Your task to perform on an android device: show emergency info Image 0: 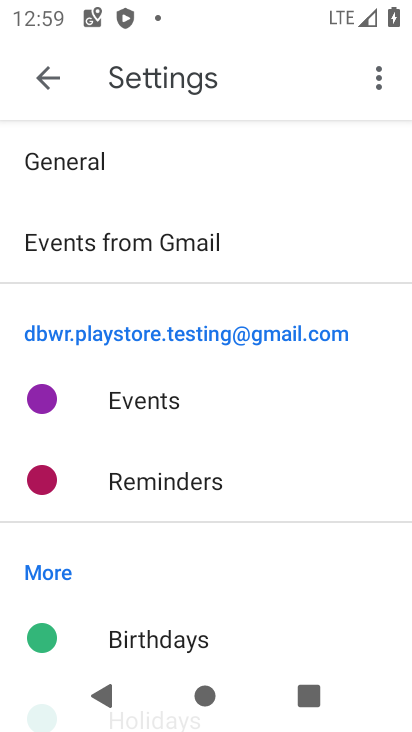
Step 0: press back button
Your task to perform on an android device: show emergency info Image 1: 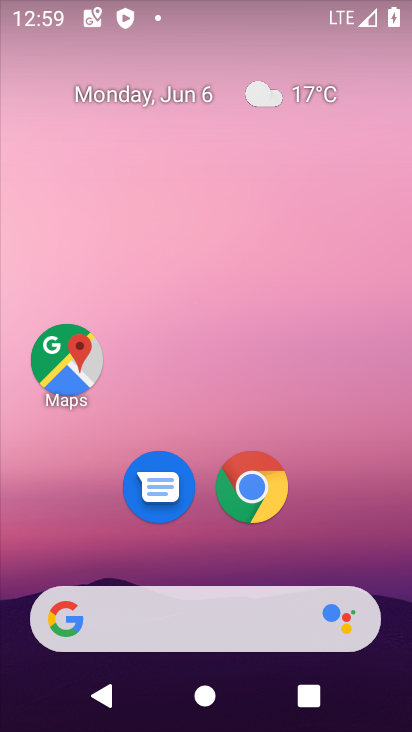
Step 1: drag from (211, 554) to (268, 19)
Your task to perform on an android device: show emergency info Image 2: 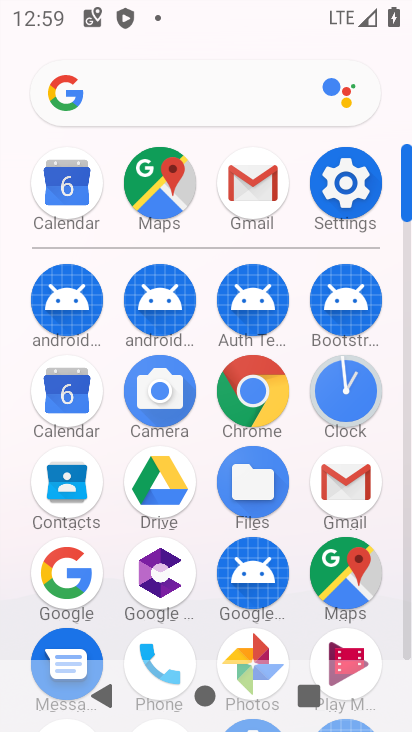
Step 2: click (361, 180)
Your task to perform on an android device: show emergency info Image 3: 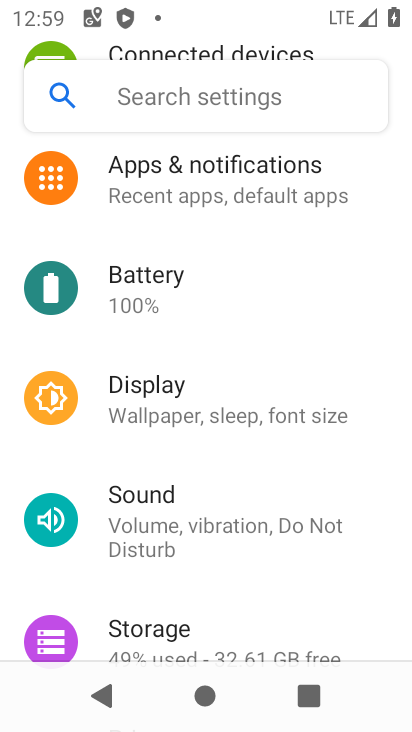
Step 3: drag from (153, 625) to (289, 107)
Your task to perform on an android device: show emergency info Image 4: 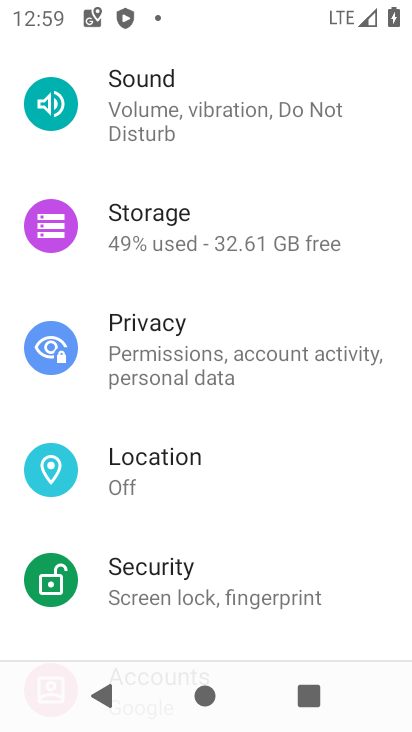
Step 4: drag from (201, 612) to (255, 9)
Your task to perform on an android device: show emergency info Image 5: 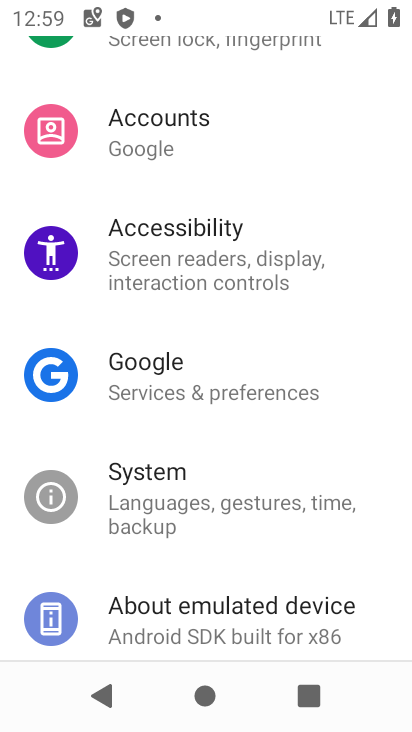
Step 5: drag from (211, 586) to (326, 35)
Your task to perform on an android device: show emergency info Image 6: 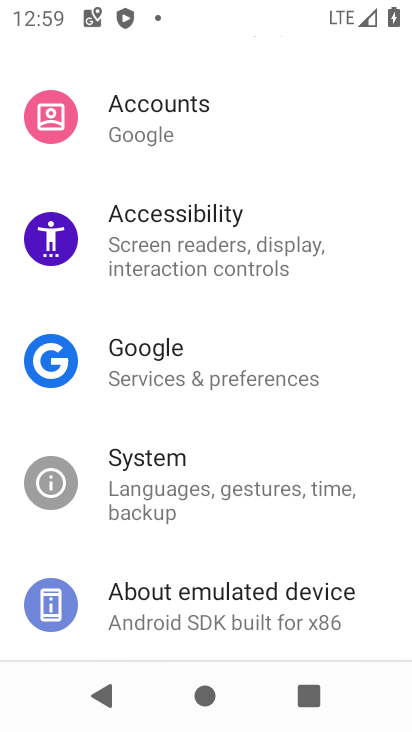
Step 6: click (199, 611)
Your task to perform on an android device: show emergency info Image 7: 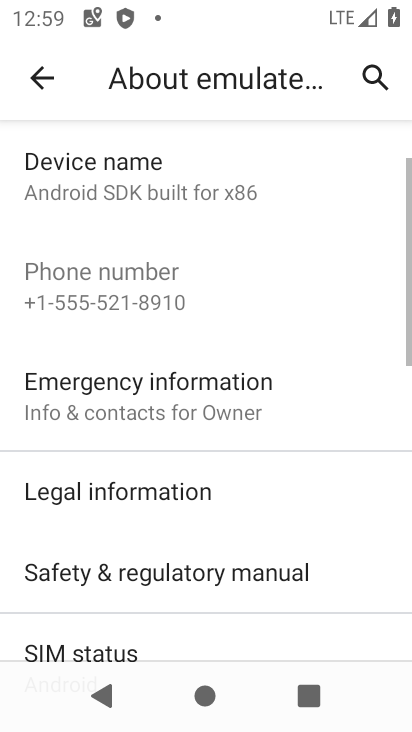
Step 7: click (183, 400)
Your task to perform on an android device: show emergency info Image 8: 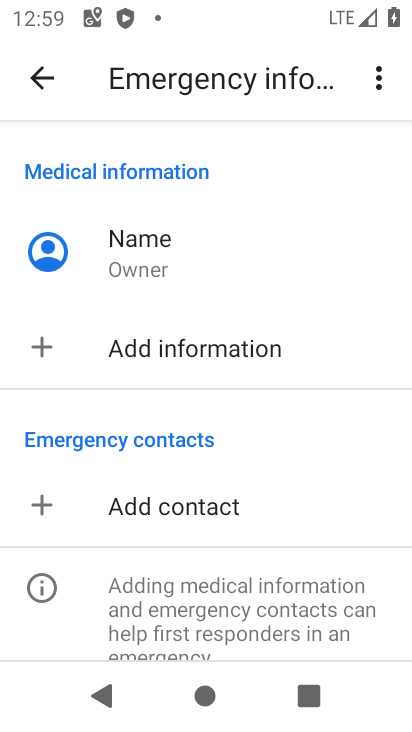
Step 8: task complete